Your task to perform on an android device: toggle priority inbox in the gmail app Image 0: 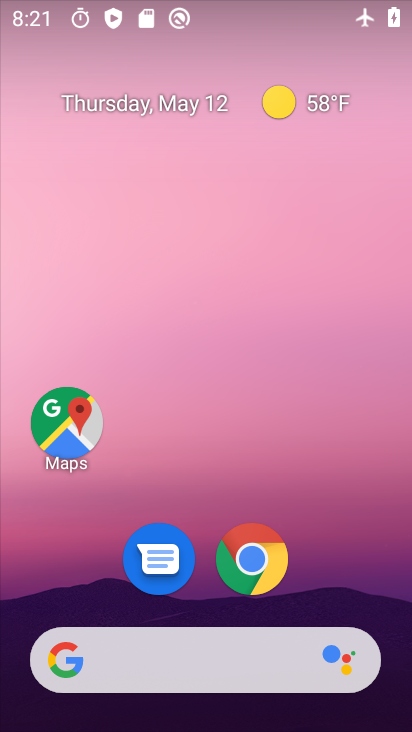
Step 0: drag from (326, 586) to (187, 116)
Your task to perform on an android device: toggle priority inbox in the gmail app Image 1: 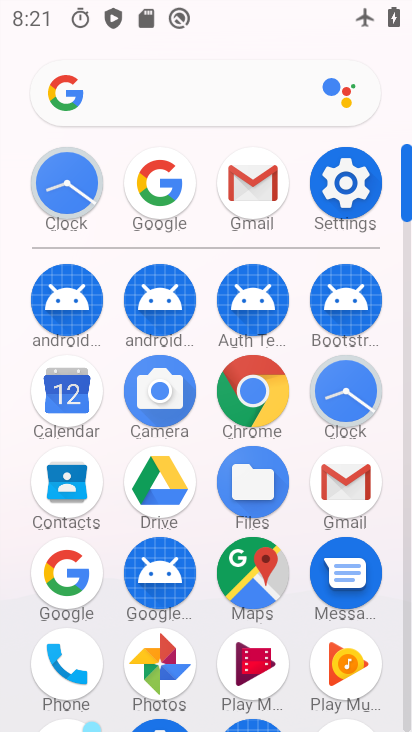
Step 1: click (249, 189)
Your task to perform on an android device: toggle priority inbox in the gmail app Image 2: 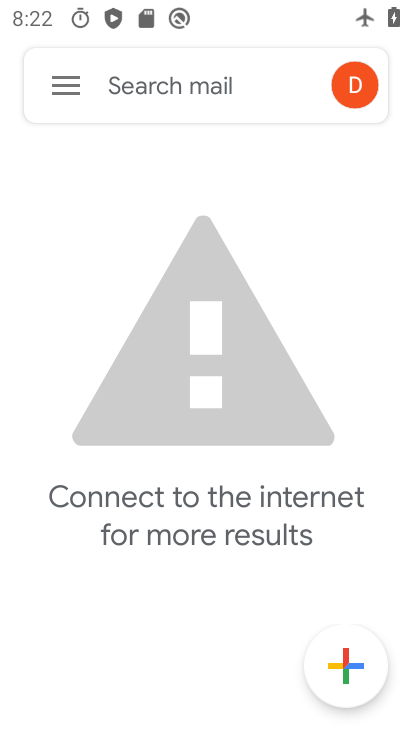
Step 2: click (71, 89)
Your task to perform on an android device: toggle priority inbox in the gmail app Image 3: 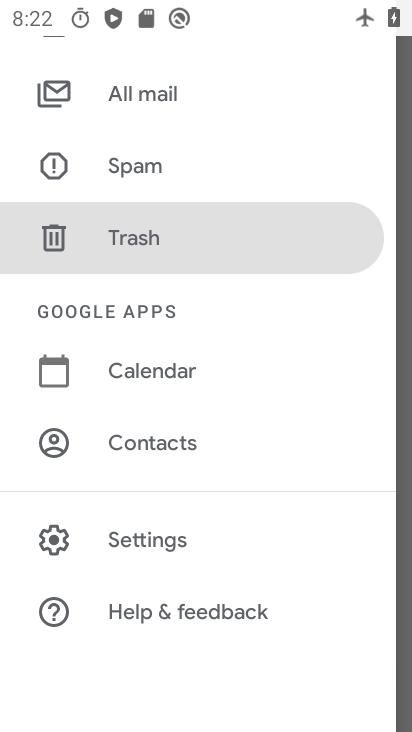
Step 3: click (157, 543)
Your task to perform on an android device: toggle priority inbox in the gmail app Image 4: 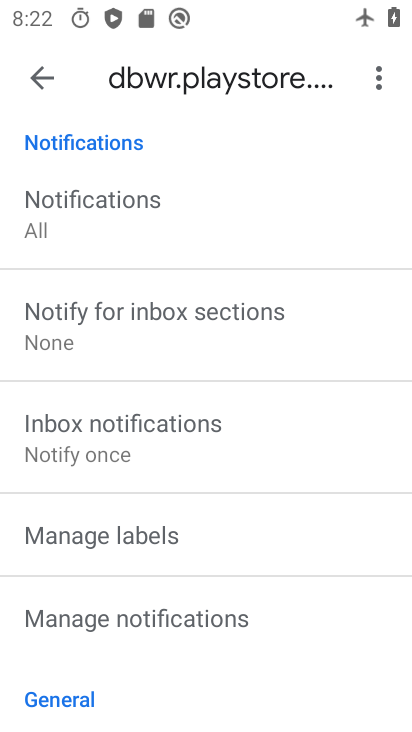
Step 4: drag from (136, 403) to (145, 303)
Your task to perform on an android device: toggle priority inbox in the gmail app Image 5: 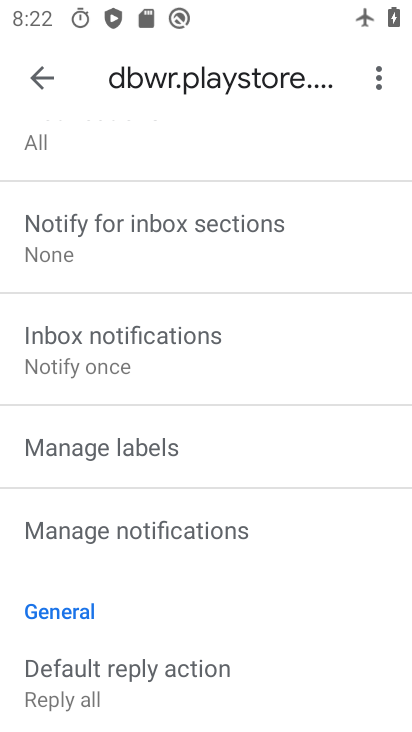
Step 5: drag from (134, 462) to (169, 320)
Your task to perform on an android device: toggle priority inbox in the gmail app Image 6: 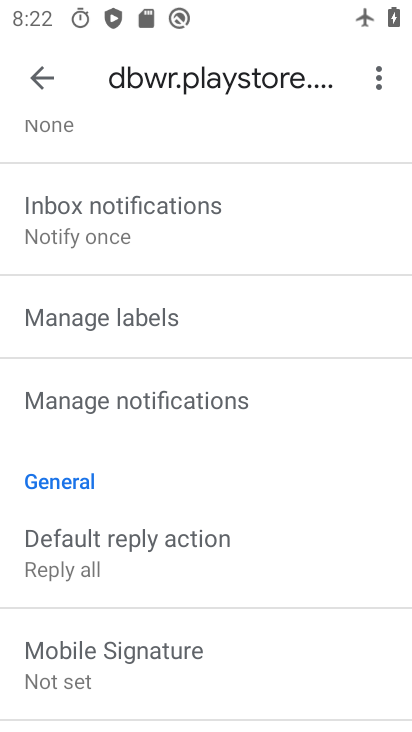
Step 6: drag from (131, 451) to (169, 337)
Your task to perform on an android device: toggle priority inbox in the gmail app Image 7: 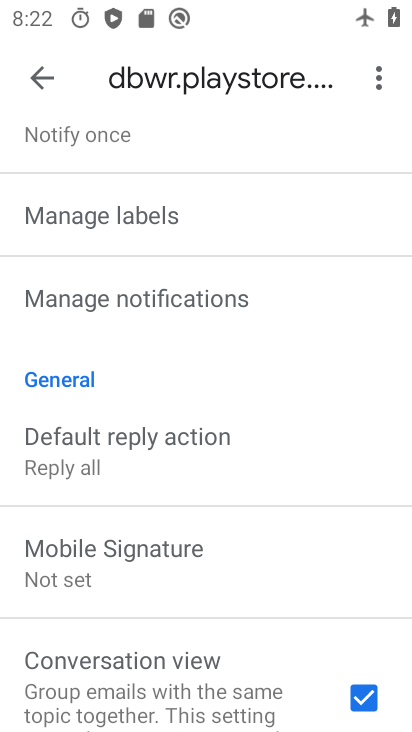
Step 7: drag from (129, 481) to (151, 356)
Your task to perform on an android device: toggle priority inbox in the gmail app Image 8: 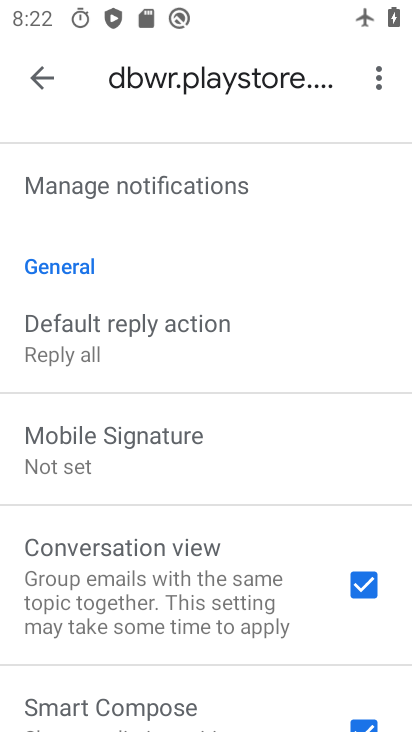
Step 8: drag from (166, 280) to (200, 498)
Your task to perform on an android device: toggle priority inbox in the gmail app Image 9: 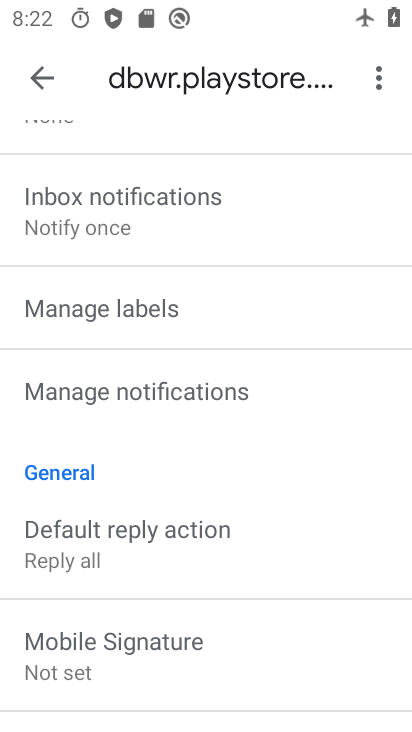
Step 9: drag from (186, 238) to (231, 447)
Your task to perform on an android device: toggle priority inbox in the gmail app Image 10: 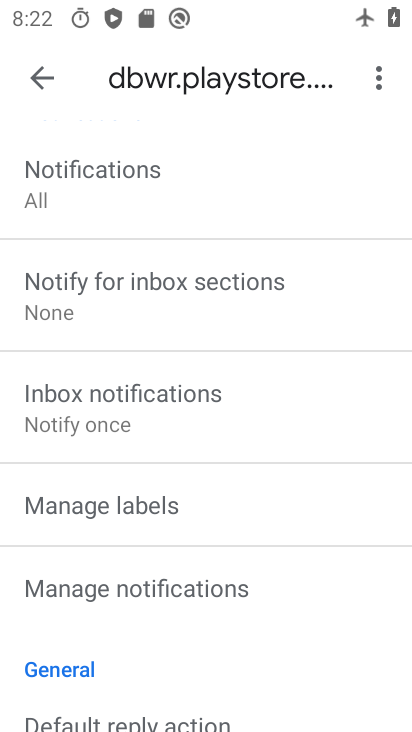
Step 10: drag from (192, 237) to (203, 485)
Your task to perform on an android device: toggle priority inbox in the gmail app Image 11: 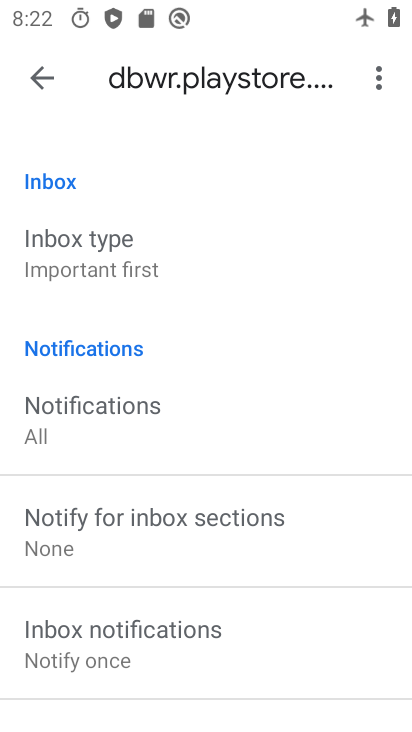
Step 11: click (111, 266)
Your task to perform on an android device: toggle priority inbox in the gmail app Image 12: 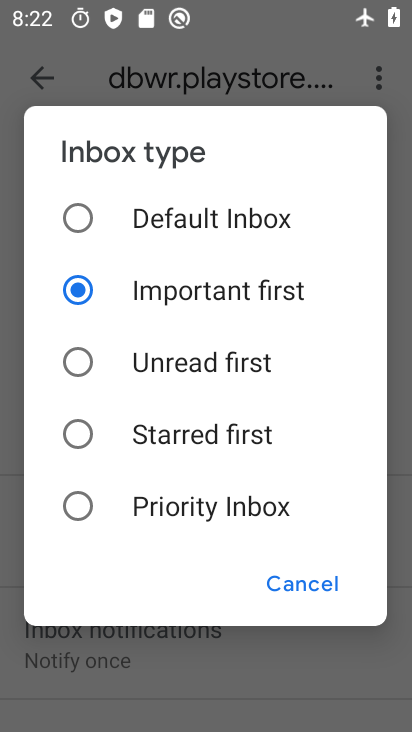
Step 12: click (88, 505)
Your task to perform on an android device: toggle priority inbox in the gmail app Image 13: 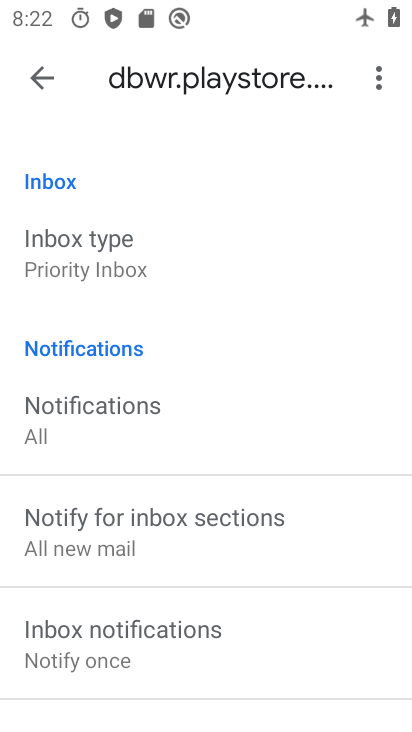
Step 13: task complete